Your task to perform on an android device: turn on wifi Image 0: 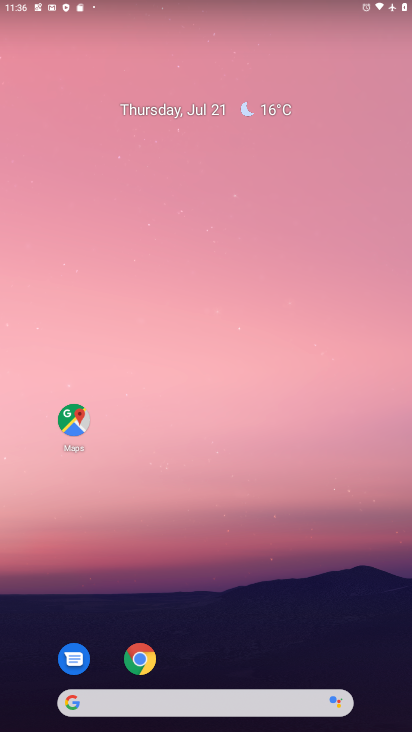
Step 0: drag from (189, 647) to (192, 133)
Your task to perform on an android device: turn on wifi Image 1: 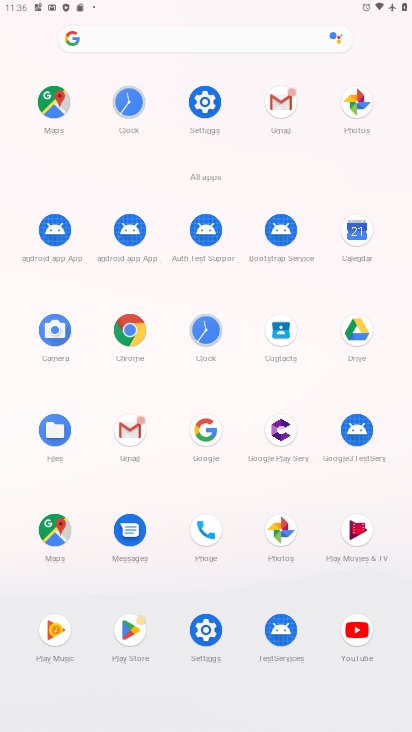
Step 1: click (203, 108)
Your task to perform on an android device: turn on wifi Image 2: 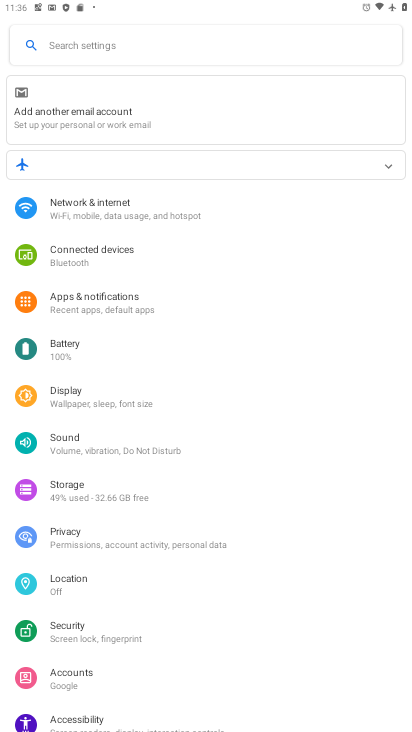
Step 2: click (105, 201)
Your task to perform on an android device: turn on wifi Image 3: 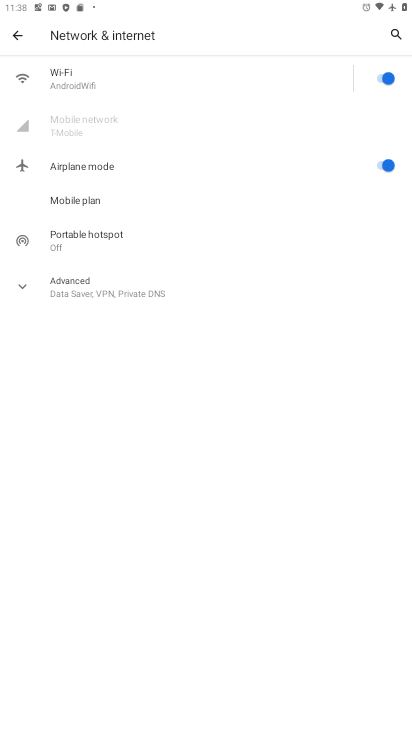
Step 3: task complete